Your task to perform on an android device: turn off airplane mode Image 0: 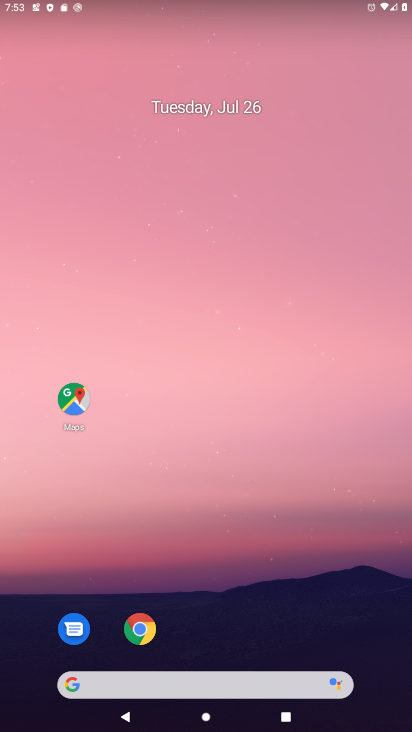
Step 0: drag from (282, 574) to (310, 150)
Your task to perform on an android device: turn off airplane mode Image 1: 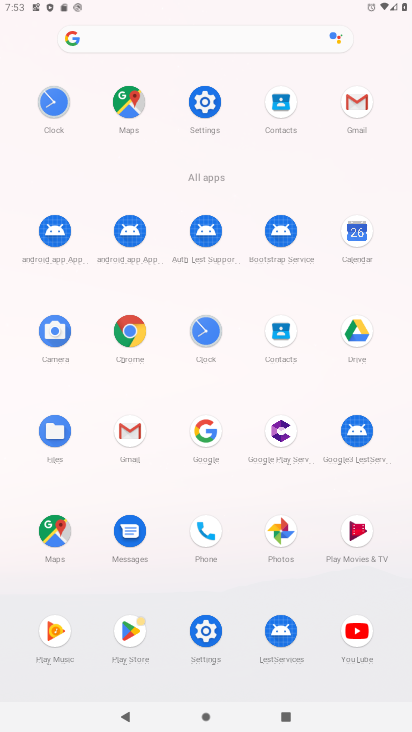
Step 1: click (204, 99)
Your task to perform on an android device: turn off airplane mode Image 2: 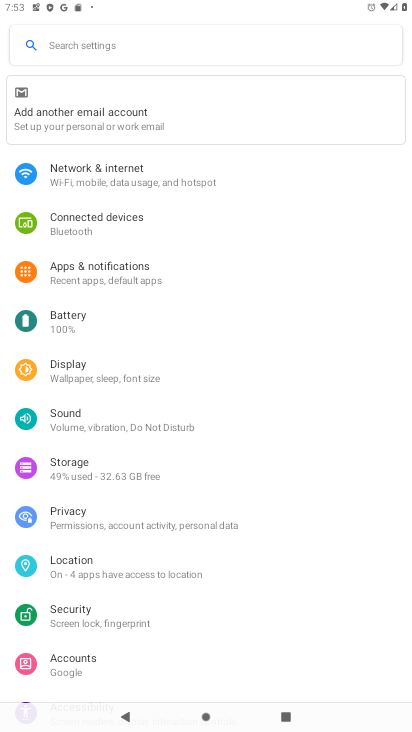
Step 2: click (194, 163)
Your task to perform on an android device: turn off airplane mode Image 3: 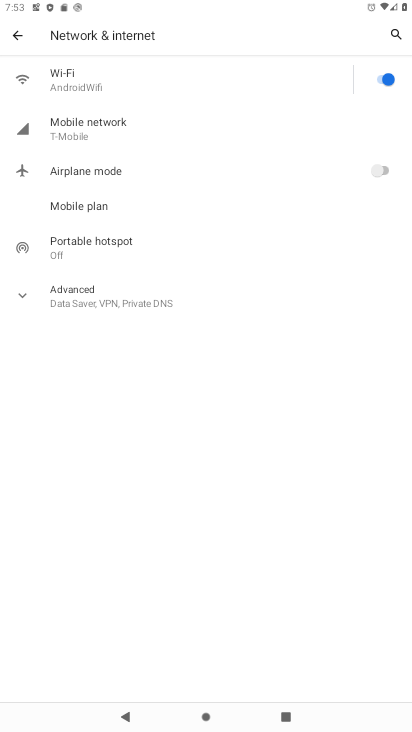
Step 3: task complete